Your task to perform on an android device: add a label to a message in the gmail app Image 0: 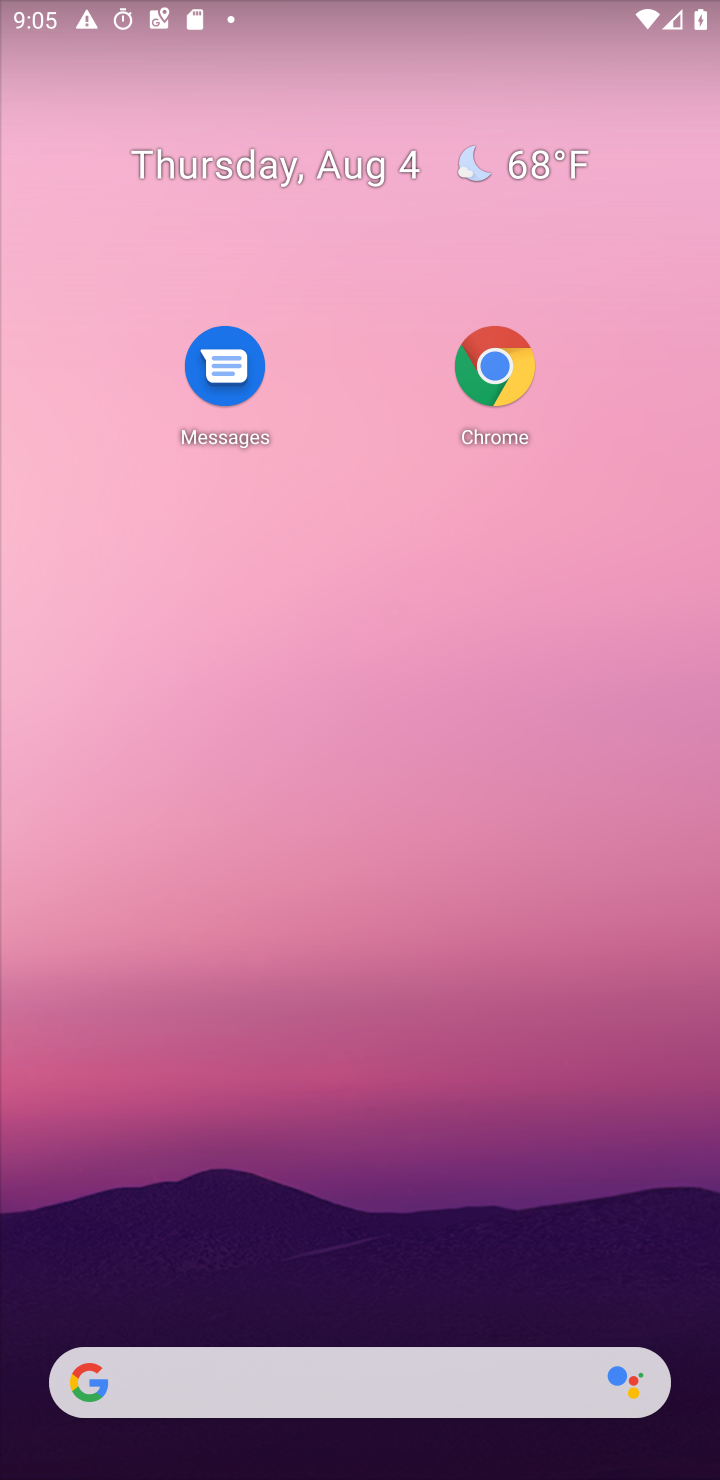
Step 0: drag from (471, 1425) to (353, 365)
Your task to perform on an android device: add a label to a message in the gmail app Image 1: 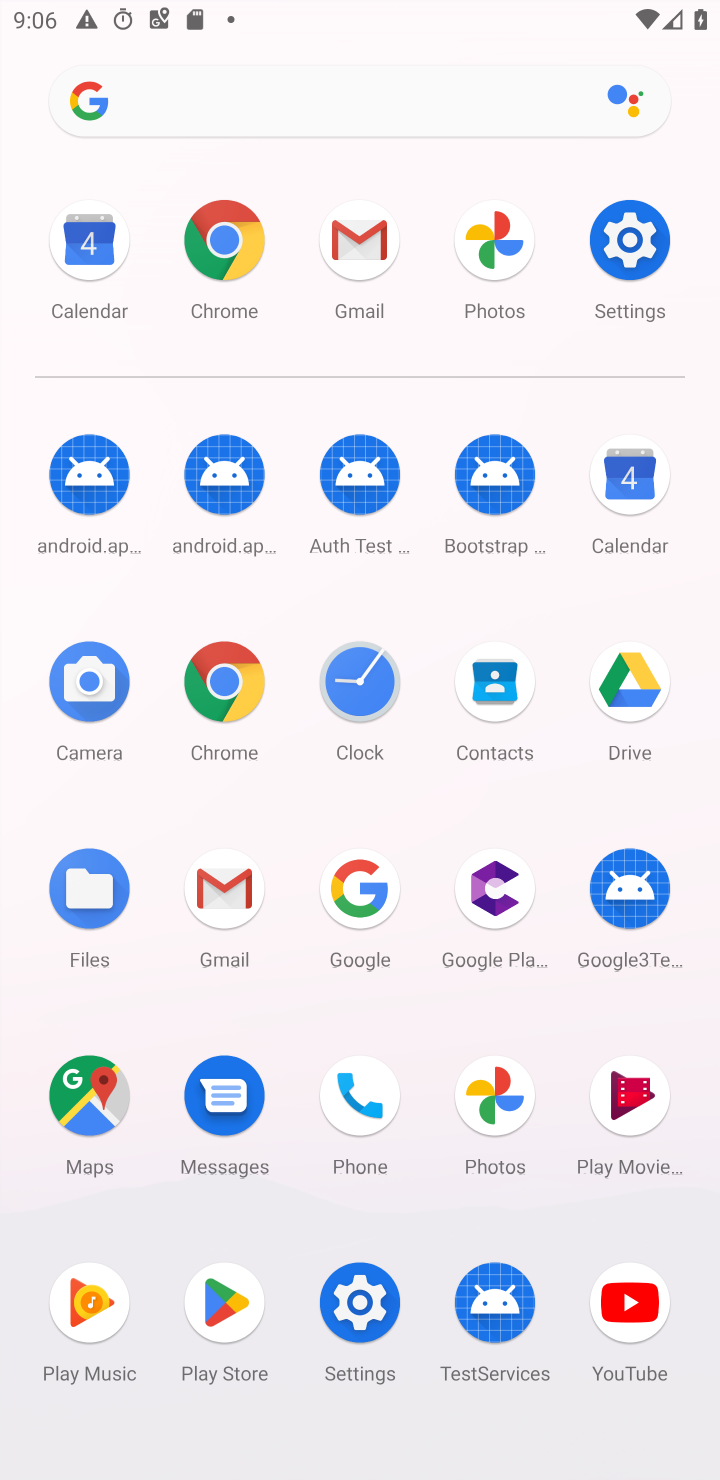
Step 1: click (357, 270)
Your task to perform on an android device: add a label to a message in the gmail app Image 2: 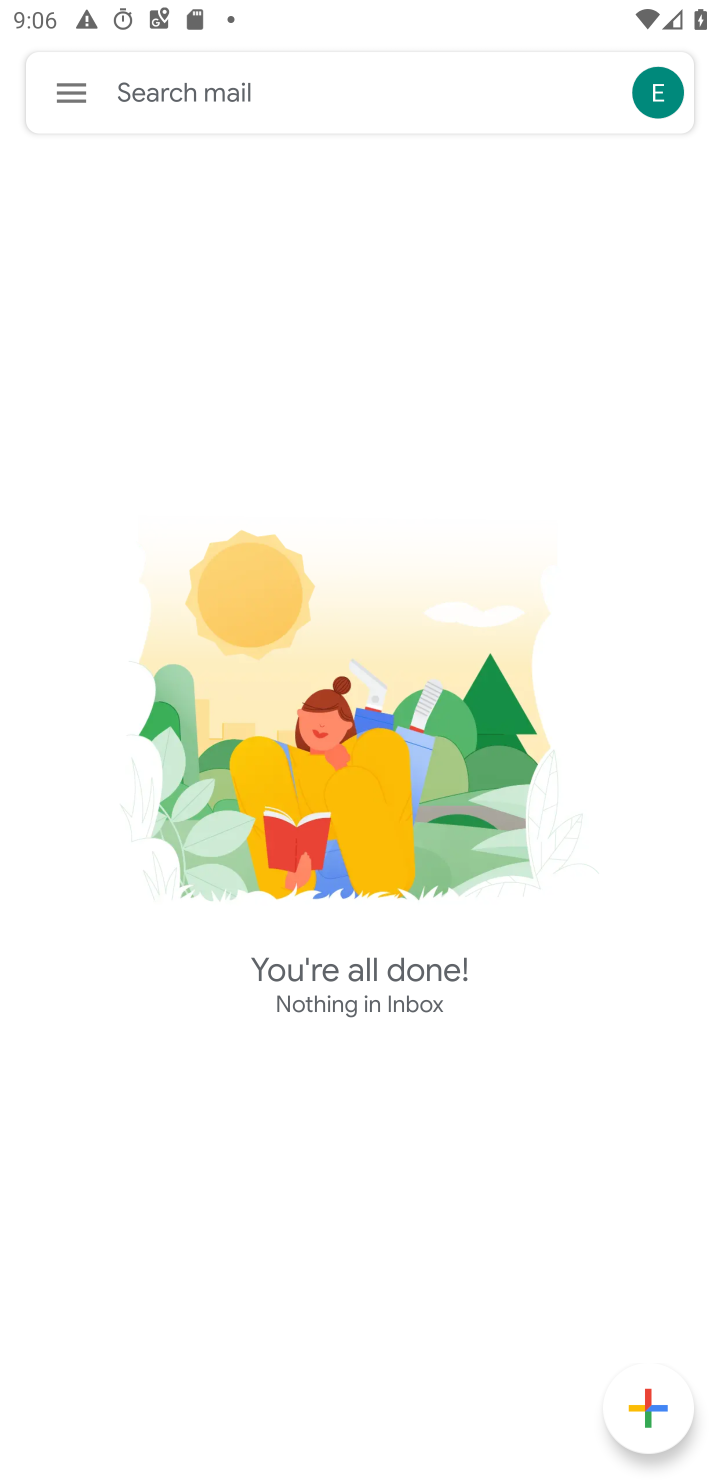
Step 2: click (73, 97)
Your task to perform on an android device: add a label to a message in the gmail app Image 3: 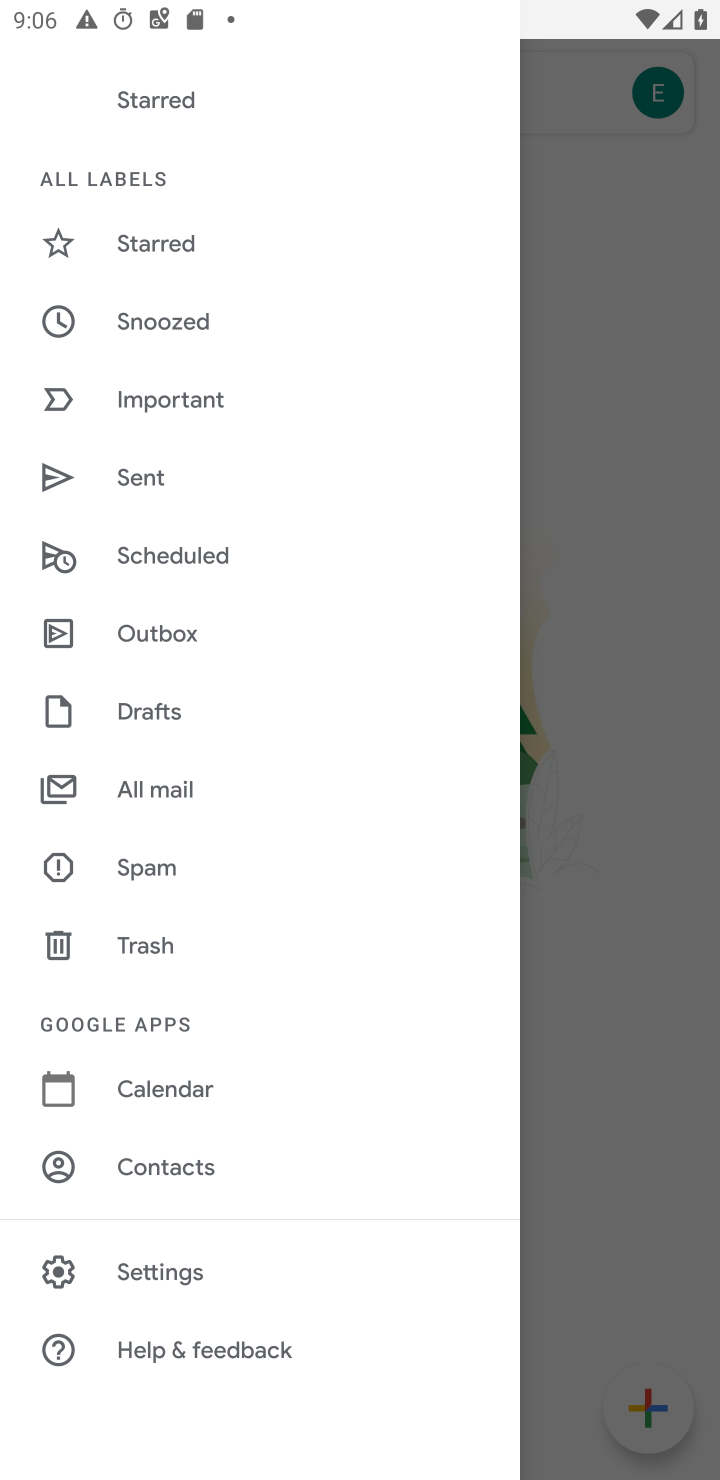
Step 3: click (152, 1268)
Your task to perform on an android device: add a label to a message in the gmail app Image 4: 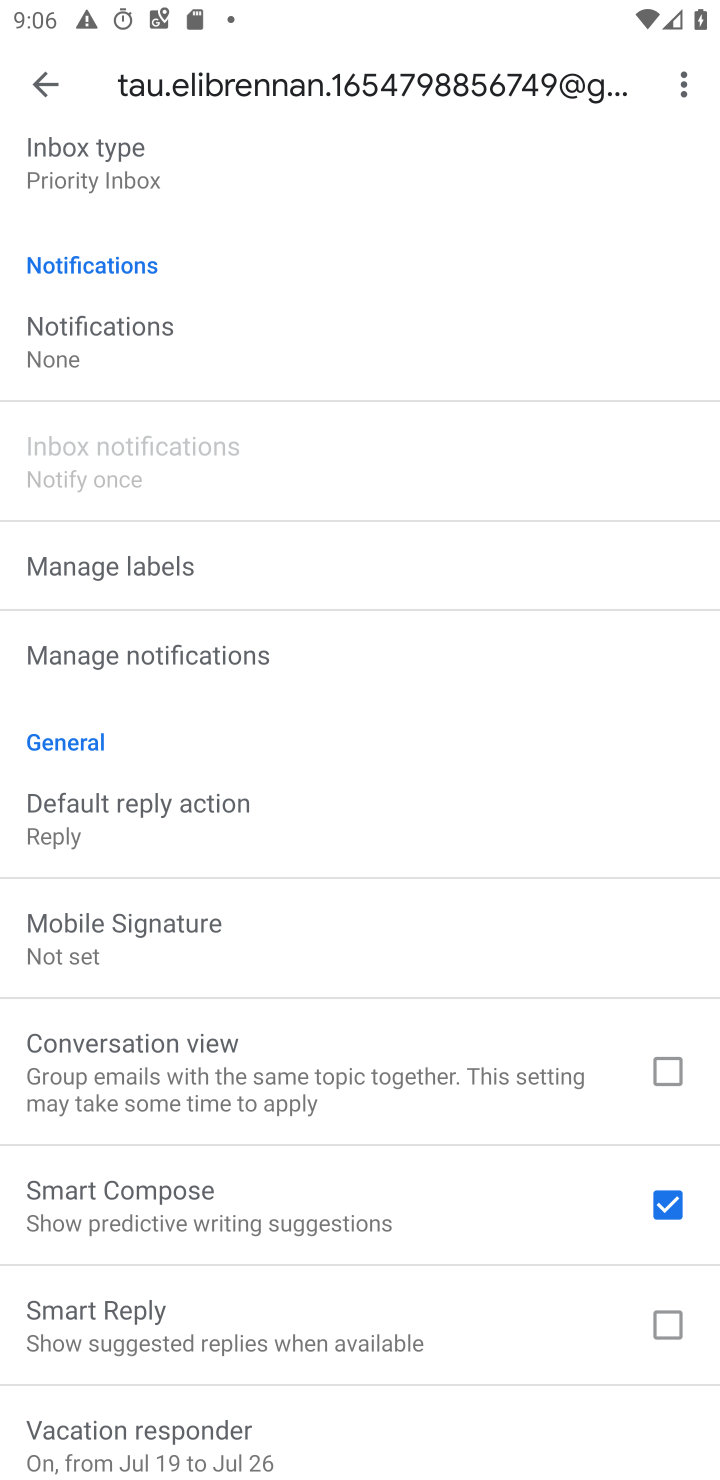
Step 4: click (214, 564)
Your task to perform on an android device: add a label to a message in the gmail app Image 5: 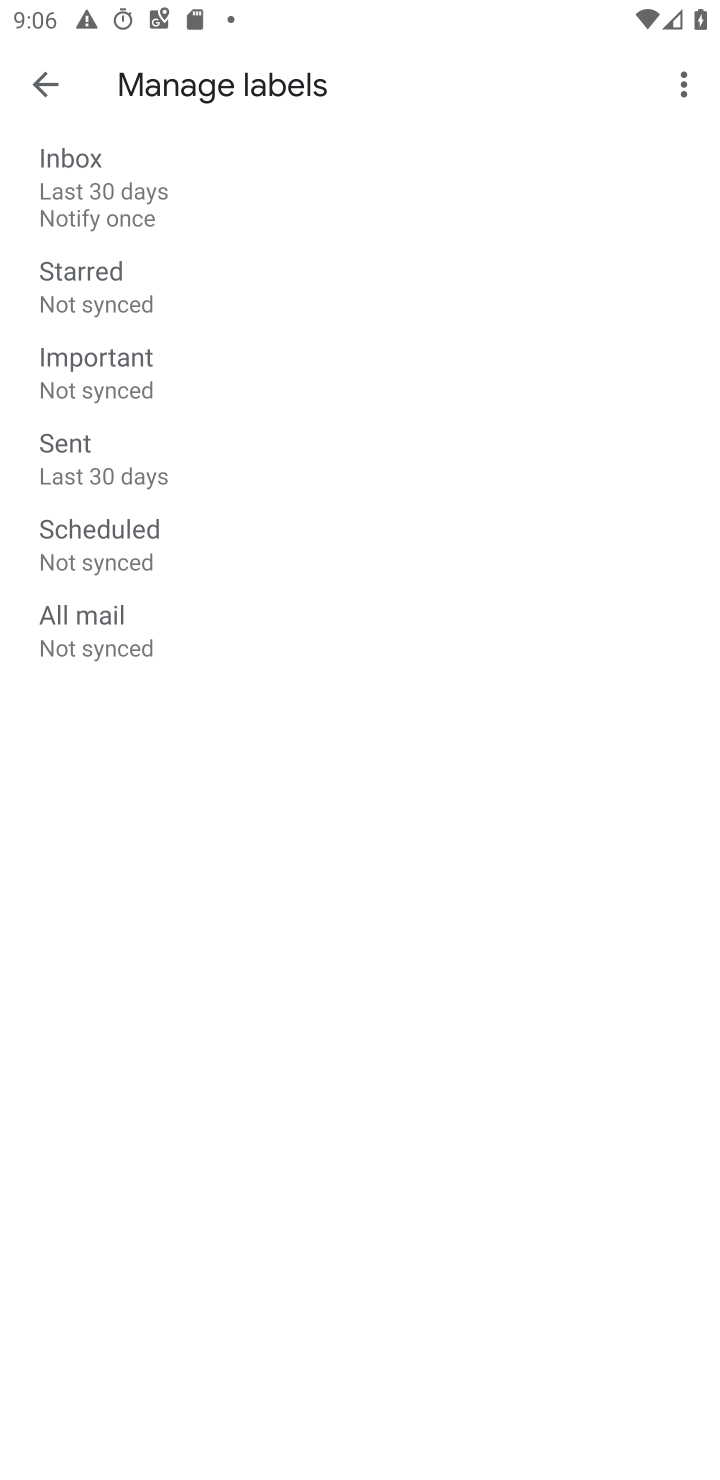
Step 5: click (182, 388)
Your task to perform on an android device: add a label to a message in the gmail app Image 6: 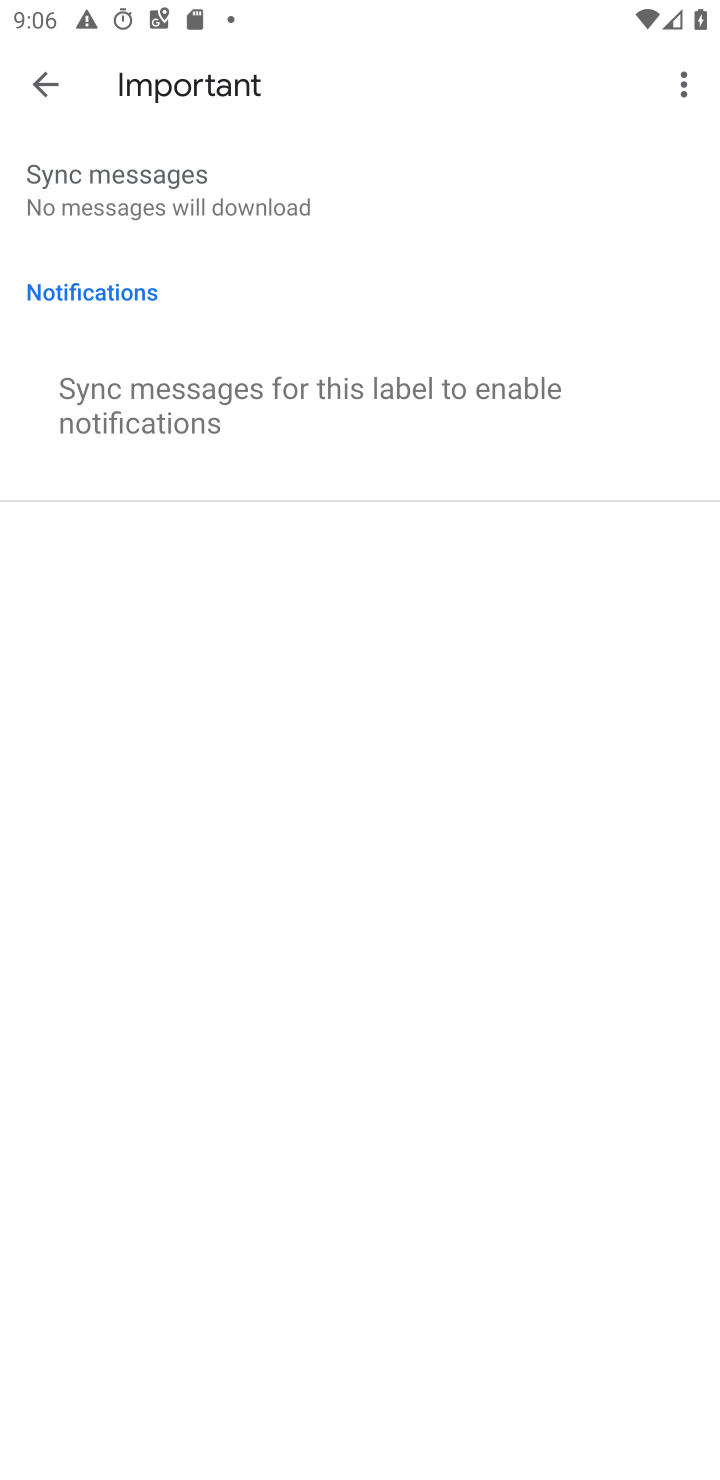
Step 6: task complete